Your task to perform on an android device: refresh tabs in the chrome app Image 0: 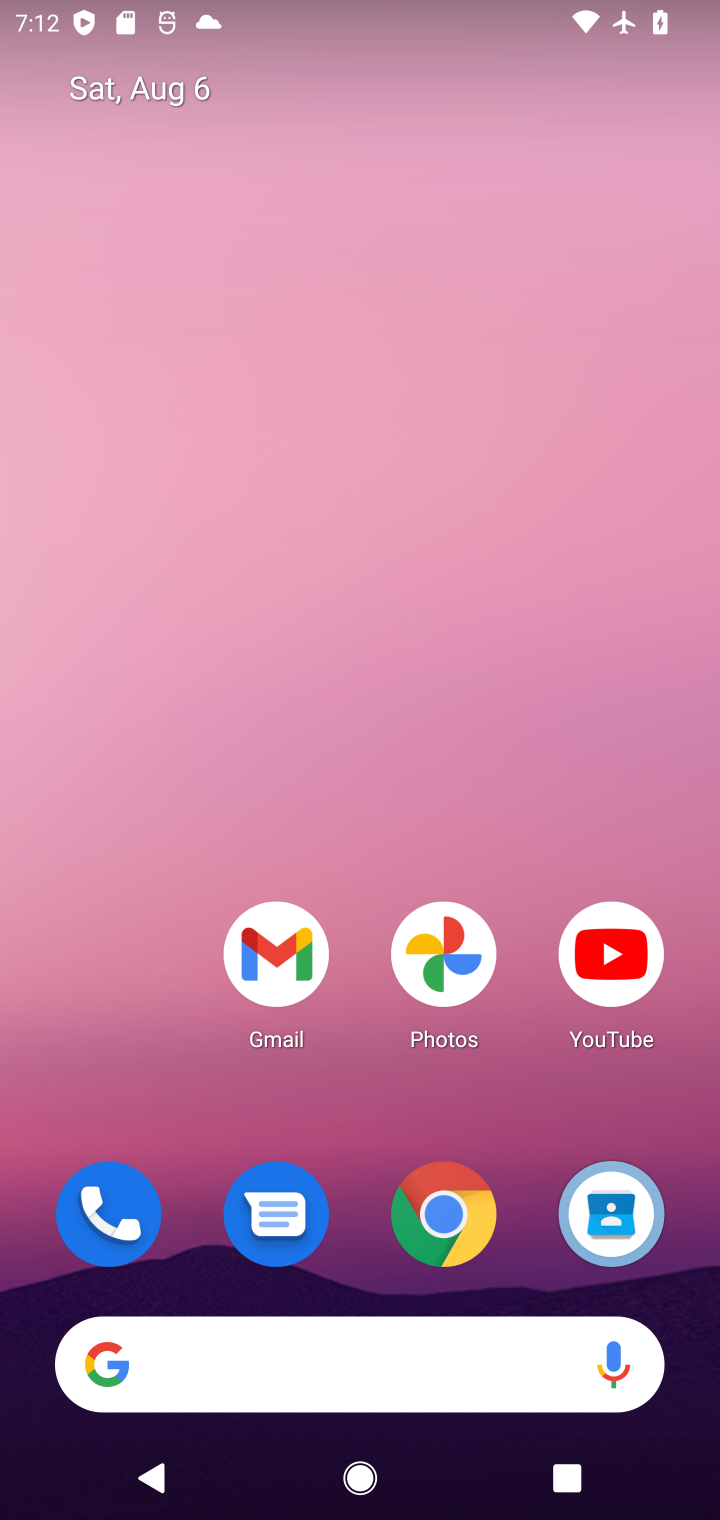
Step 0: click (432, 1227)
Your task to perform on an android device: refresh tabs in the chrome app Image 1: 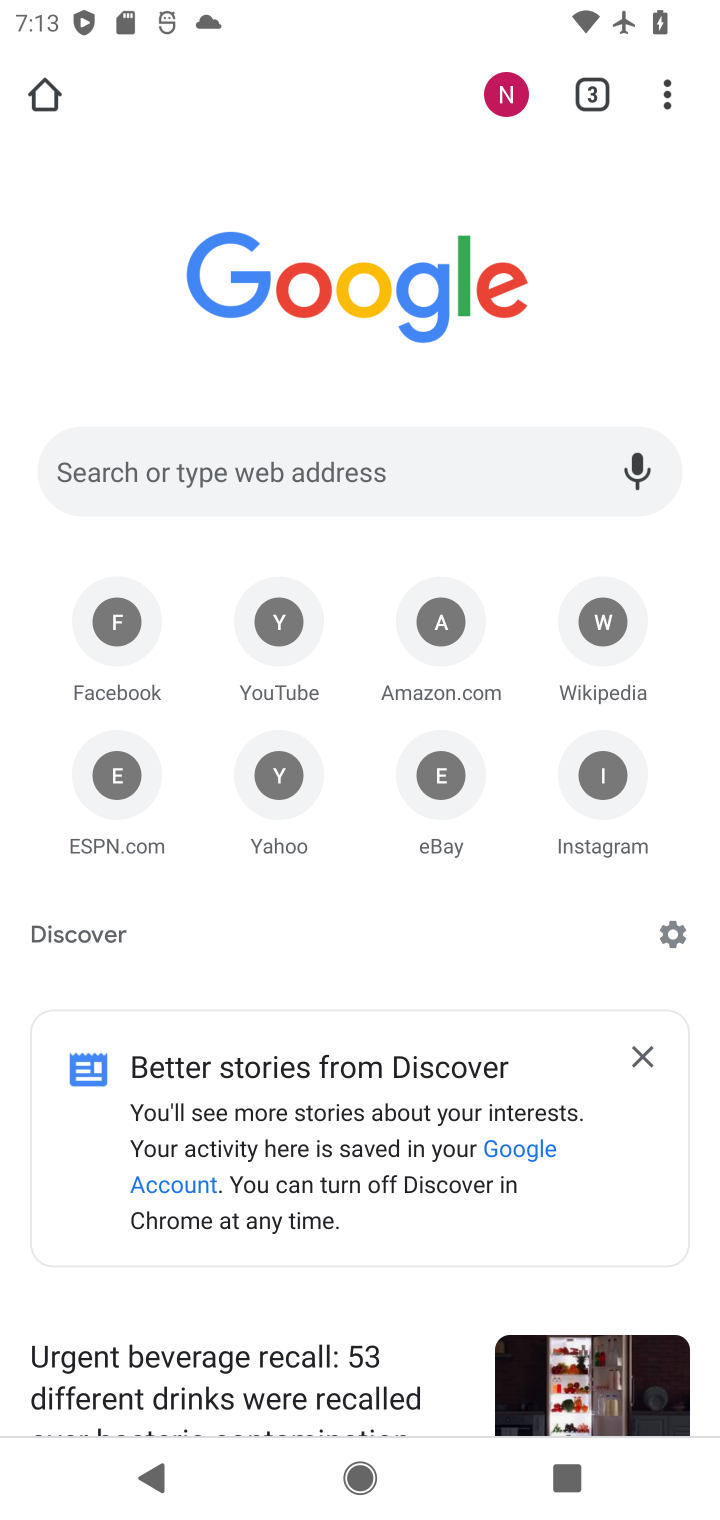
Step 1: click (655, 117)
Your task to perform on an android device: refresh tabs in the chrome app Image 2: 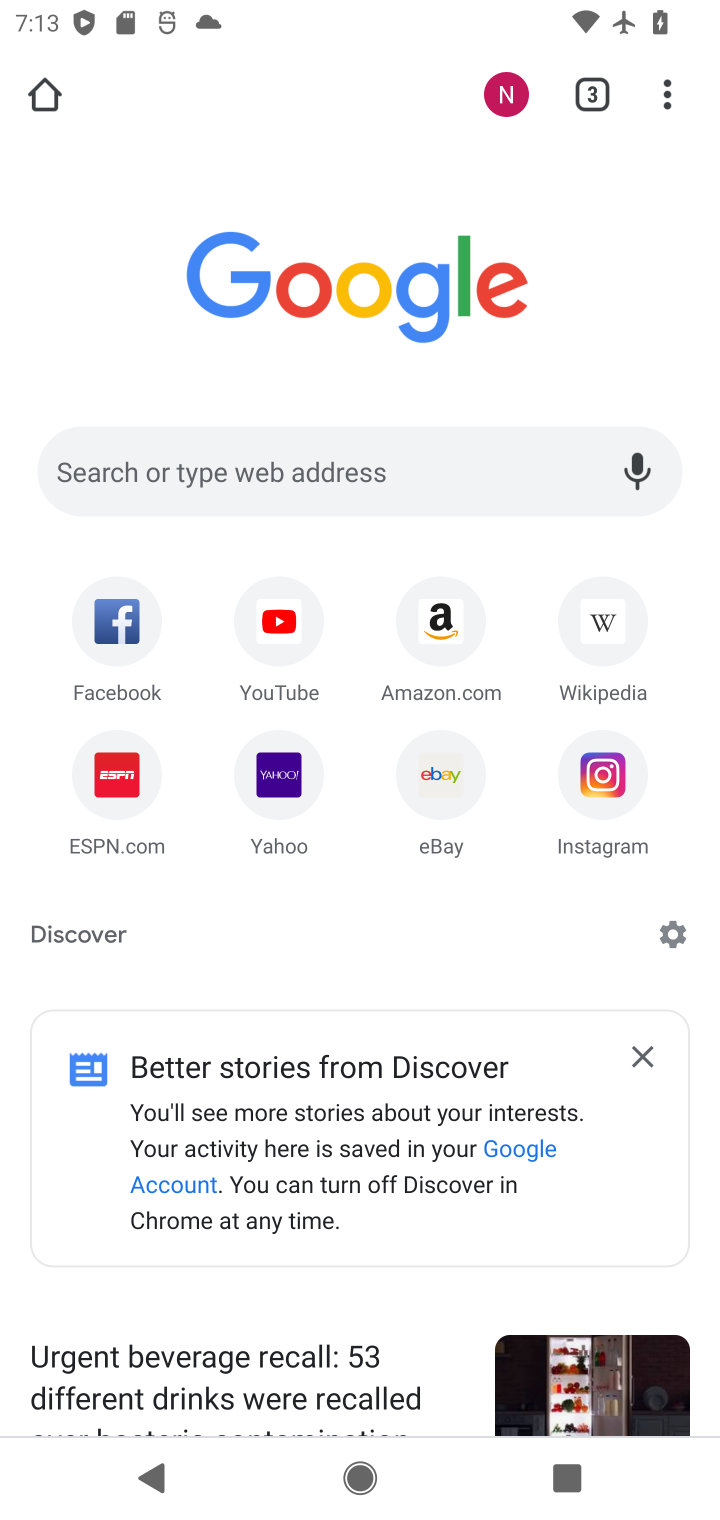
Step 2: click (663, 109)
Your task to perform on an android device: refresh tabs in the chrome app Image 3: 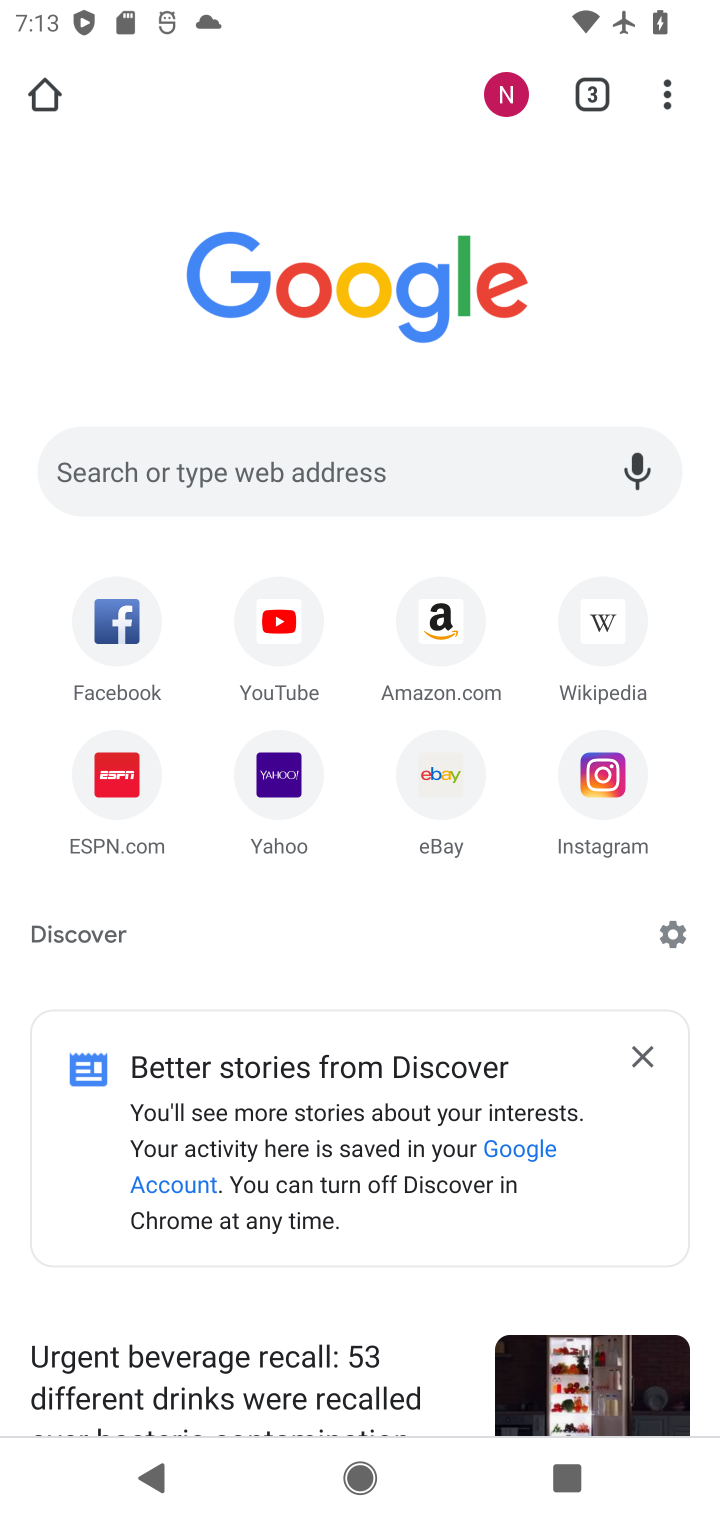
Step 3: click (658, 93)
Your task to perform on an android device: refresh tabs in the chrome app Image 4: 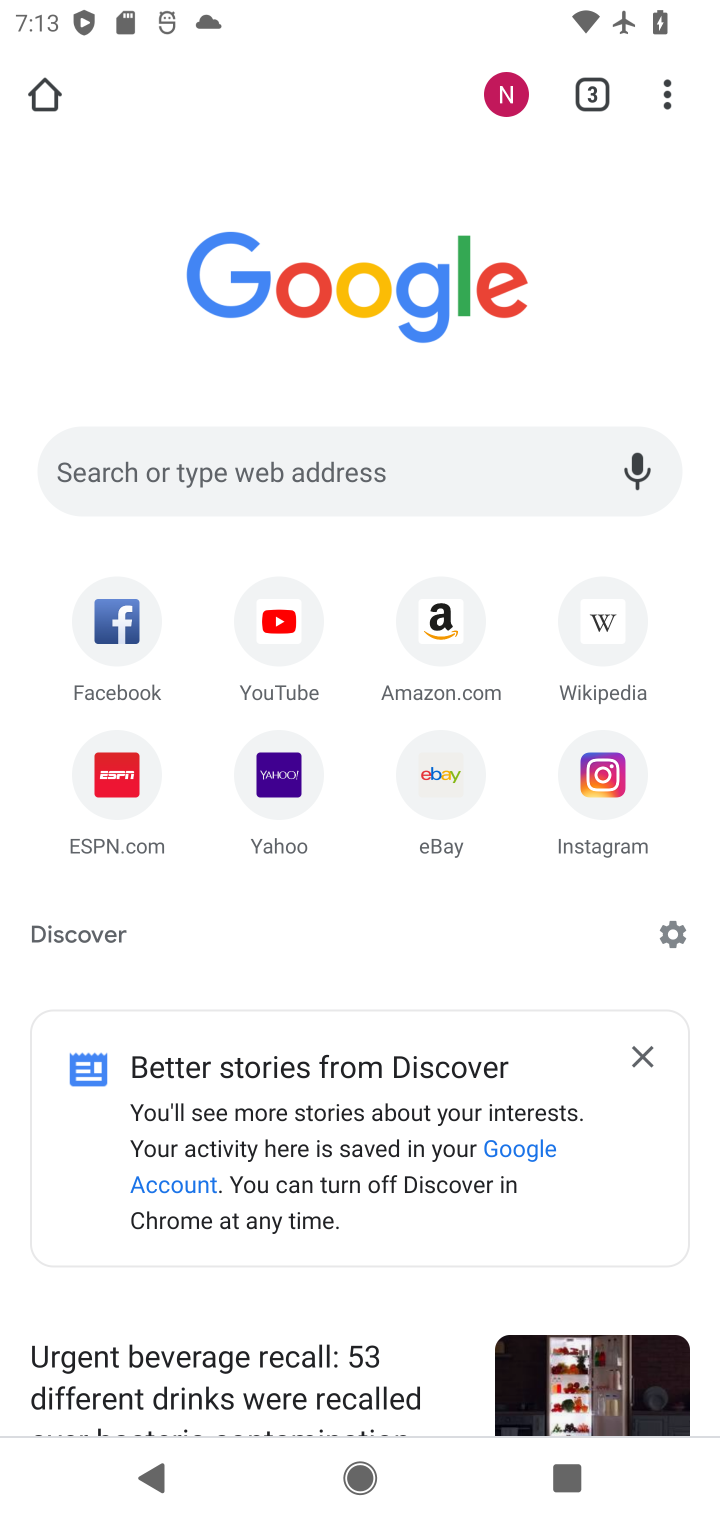
Step 4: click (657, 106)
Your task to perform on an android device: refresh tabs in the chrome app Image 5: 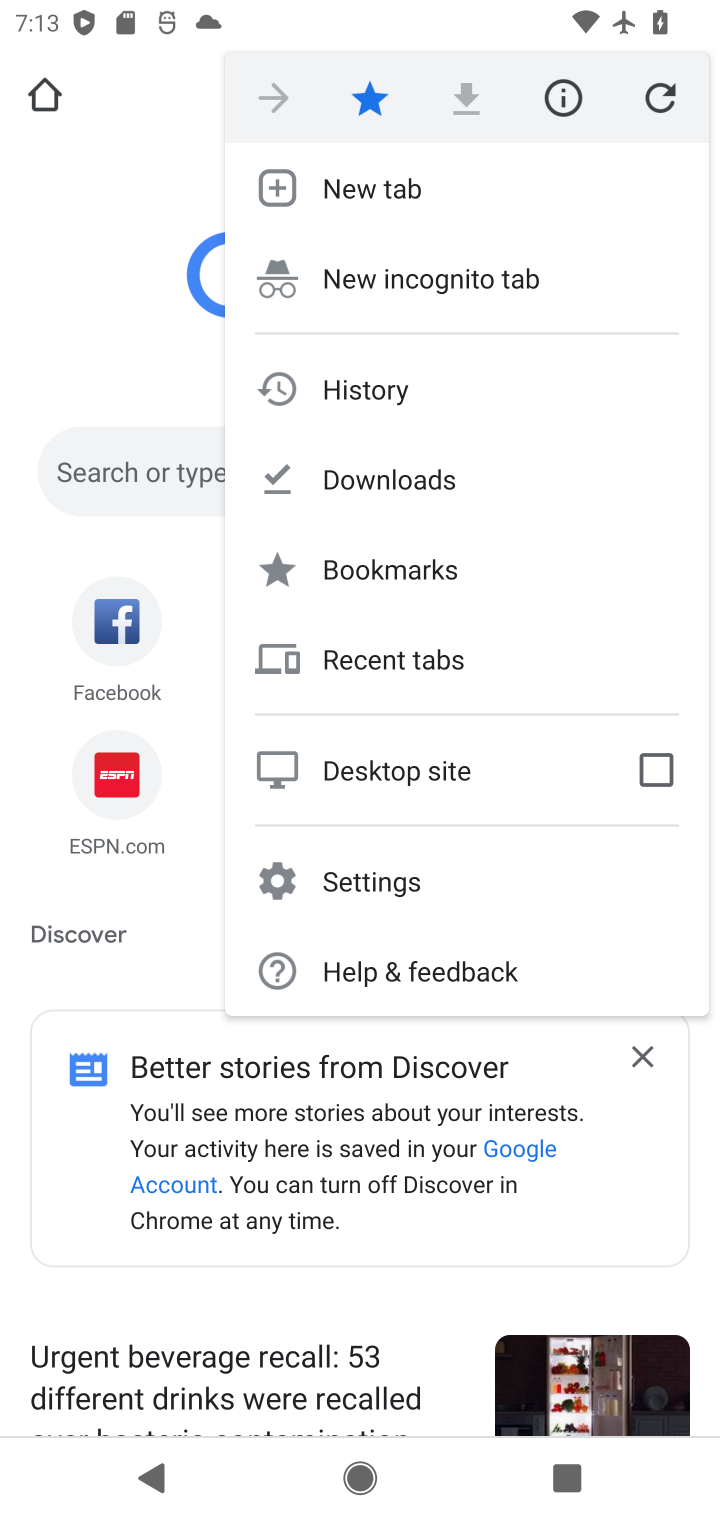
Step 5: click (672, 89)
Your task to perform on an android device: refresh tabs in the chrome app Image 6: 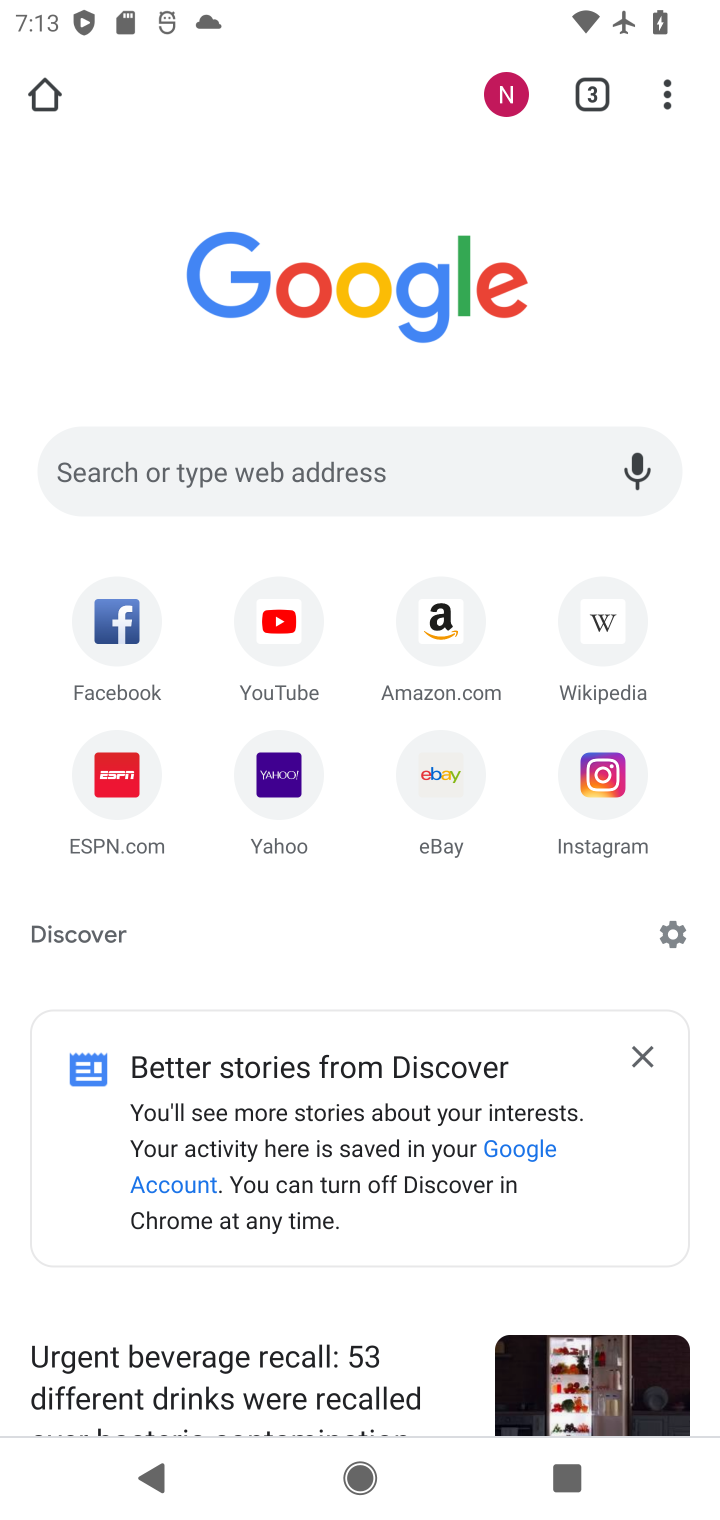
Step 6: task complete